Your task to perform on an android device: empty trash in the gmail app Image 0: 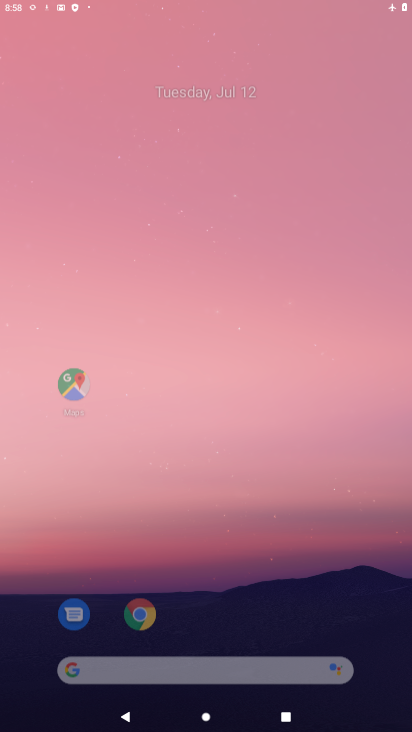
Step 0: click (168, 189)
Your task to perform on an android device: empty trash in the gmail app Image 1: 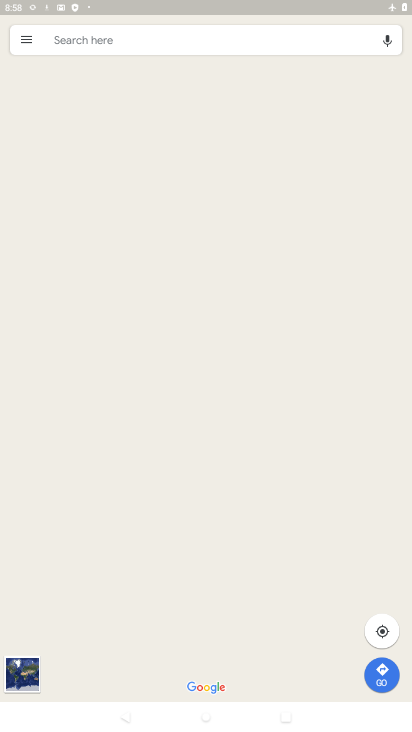
Step 1: press back button
Your task to perform on an android device: empty trash in the gmail app Image 2: 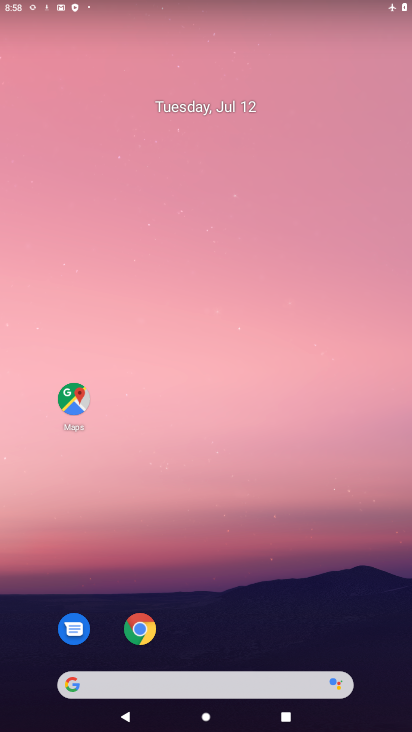
Step 2: drag from (219, 647) to (192, 140)
Your task to perform on an android device: empty trash in the gmail app Image 3: 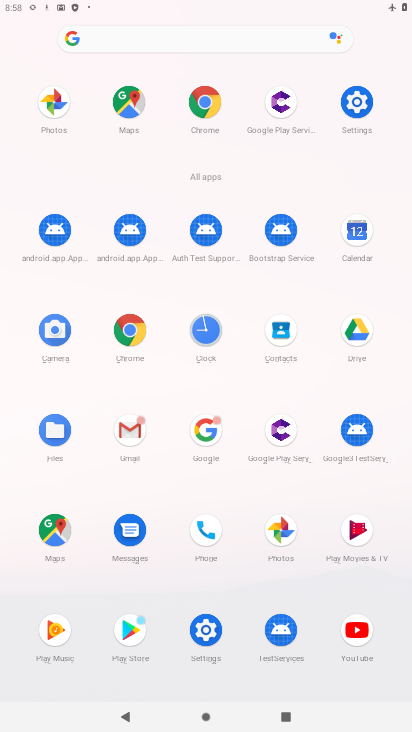
Step 3: click (138, 437)
Your task to perform on an android device: empty trash in the gmail app Image 4: 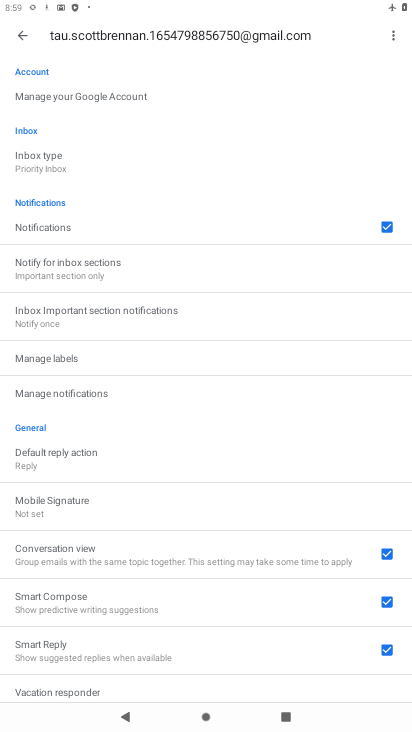
Step 4: click (22, 39)
Your task to perform on an android device: empty trash in the gmail app Image 5: 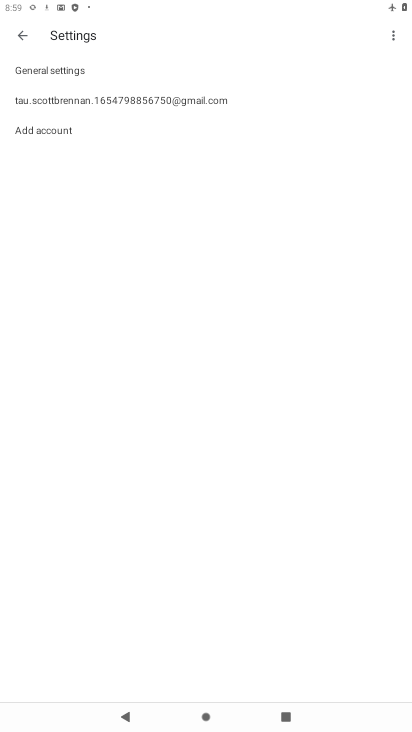
Step 5: click (21, 38)
Your task to perform on an android device: empty trash in the gmail app Image 6: 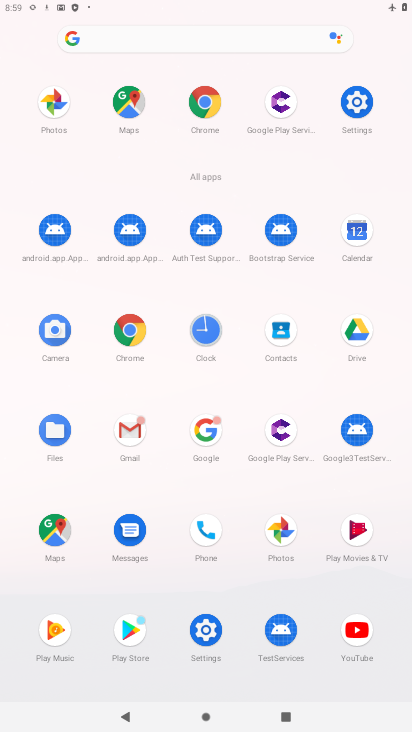
Step 6: click (137, 428)
Your task to perform on an android device: empty trash in the gmail app Image 7: 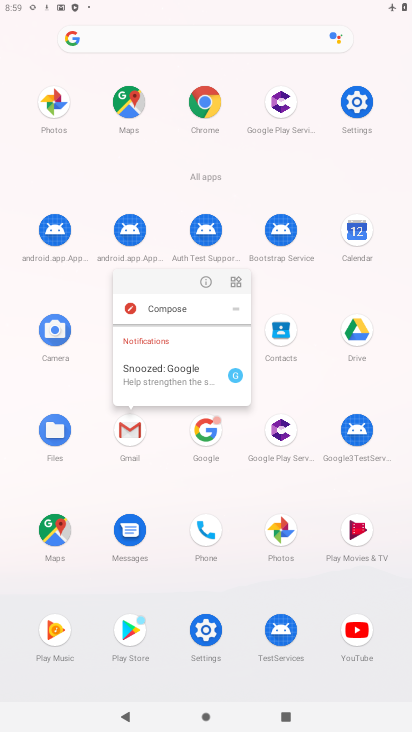
Step 7: click (126, 411)
Your task to perform on an android device: empty trash in the gmail app Image 8: 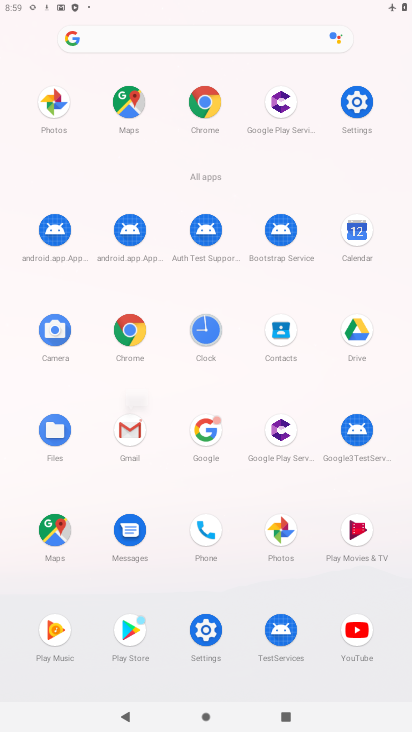
Step 8: click (129, 412)
Your task to perform on an android device: empty trash in the gmail app Image 9: 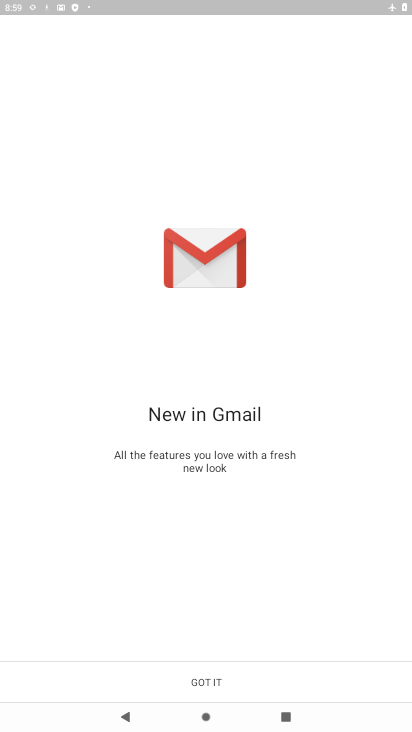
Step 9: click (214, 680)
Your task to perform on an android device: empty trash in the gmail app Image 10: 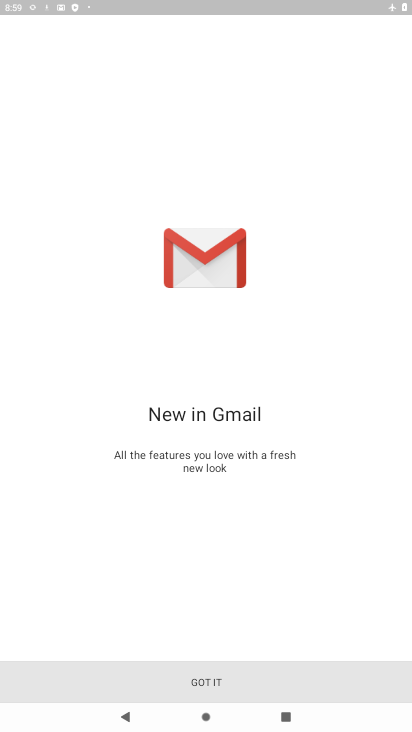
Step 10: click (213, 679)
Your task to perform on an android device: empty trash in the gmail app Image 11: 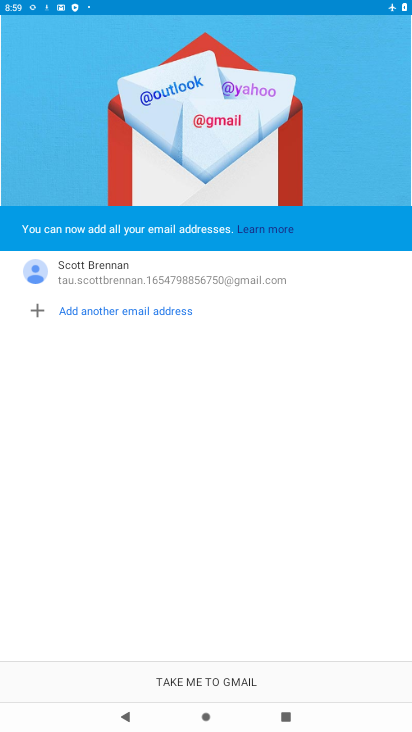
Step 11: click (220, 677)
Your task to perform on an android device: empty trash in the gmail app Image 12: 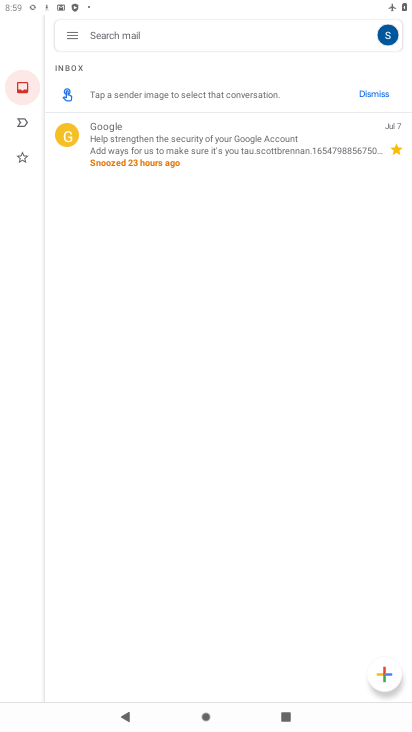
Step 12: click (30, 86)
Your task to perform on an android device: empty trash in the gmail app Image 13: 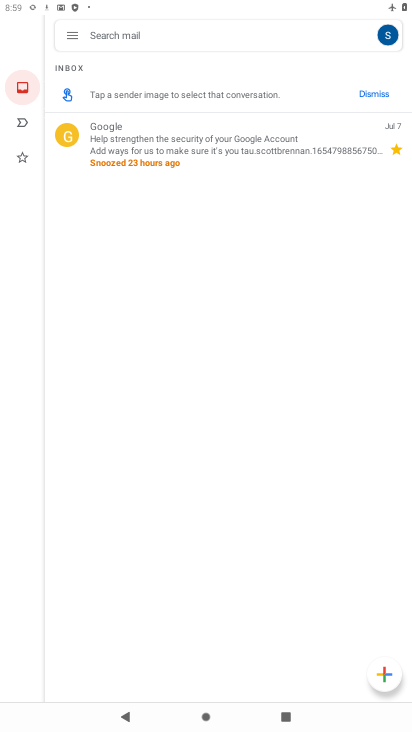
Step 13: click (66, 36)
Your task to perform on an android device: empty trash in the gmail app Image 14: 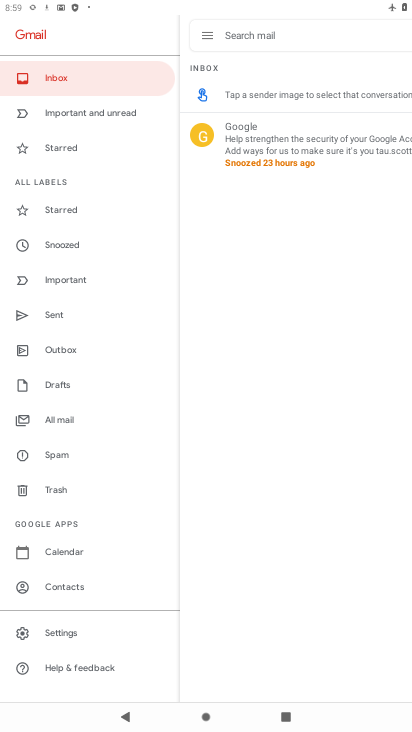
Step 14: click (57, 488)
Your task to perform on an android device: empty trash in the gmail app Image 15: 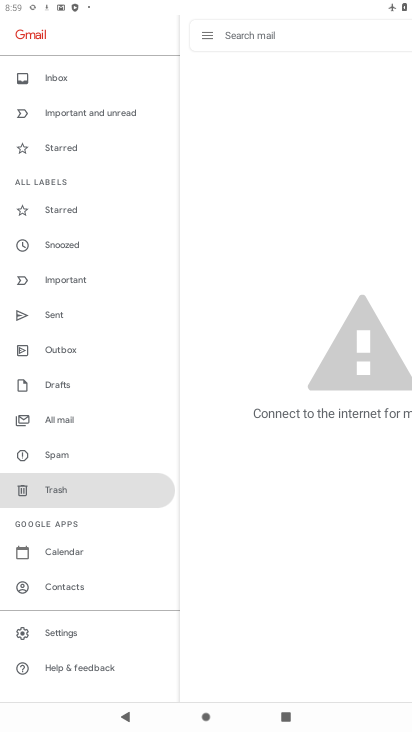
Step 15: task complete